Your task to perform on an android device: Search for "panasonic triple a" on newegg.com, select the first entry, and add it to the cart. Image 0: 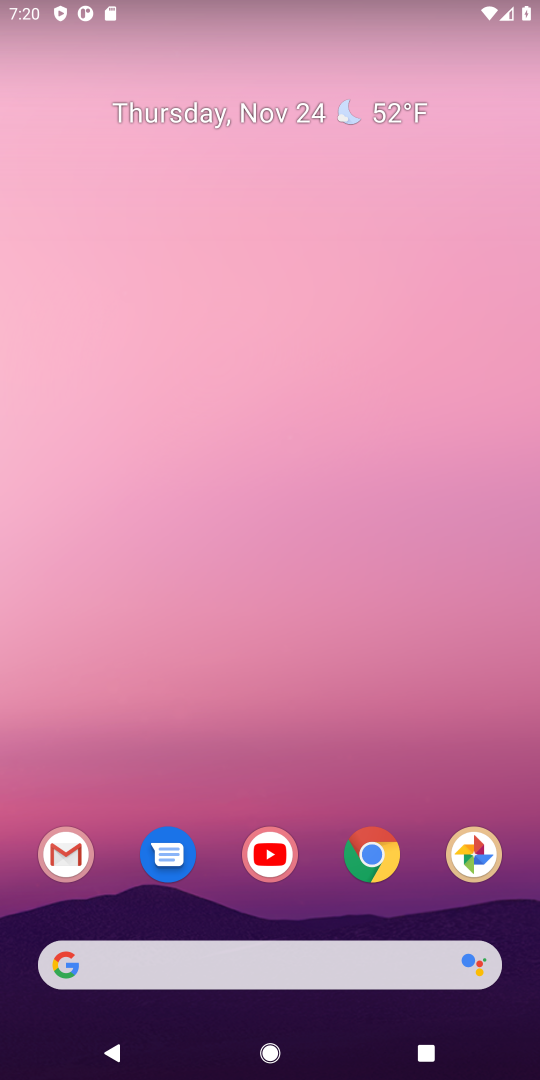
Step 0: click (358, 865)
Your task to perform on an android device: Search for "panasonic triple a" on newegg.com, select the first entry, and add it to the cart. Image 1: 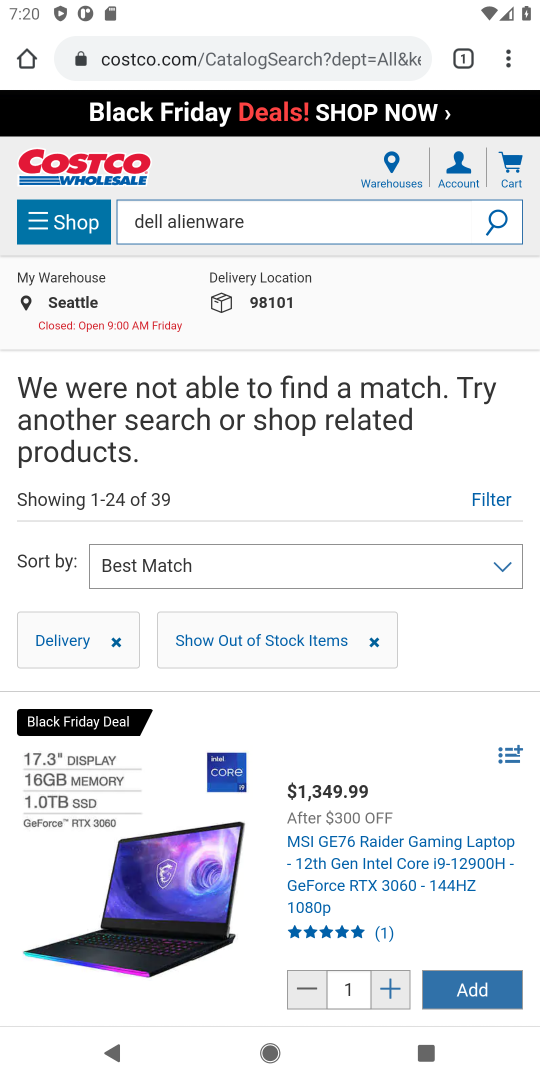
Step 1: click (208, 58)
Your task to perform on an android device: Search for "panasonic triple a" on newegg.com, select the first entry, and add it to the cart. Image 2: 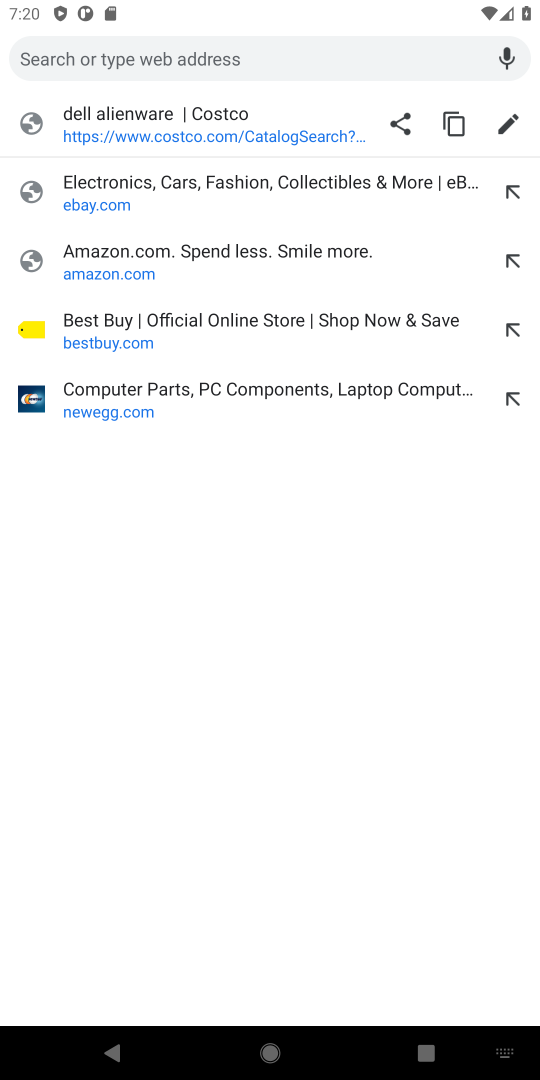
Step 2: click (80, 408)
Your task to perform on an android device: Search for "panasonic triple a" on newegg.com, select the first entry, and add it to the cart. Image 3: 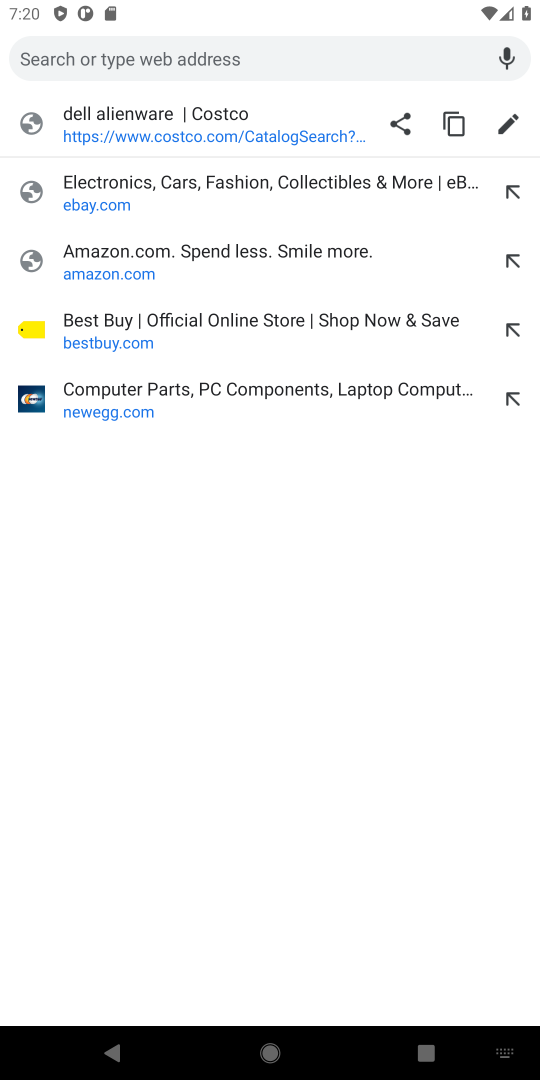
Step 3: click (93, 401)
Your task to perform on an android device: Search for "panasonic triple a" on newegg.com, select the first entry, and add it to the cart. Image 4: 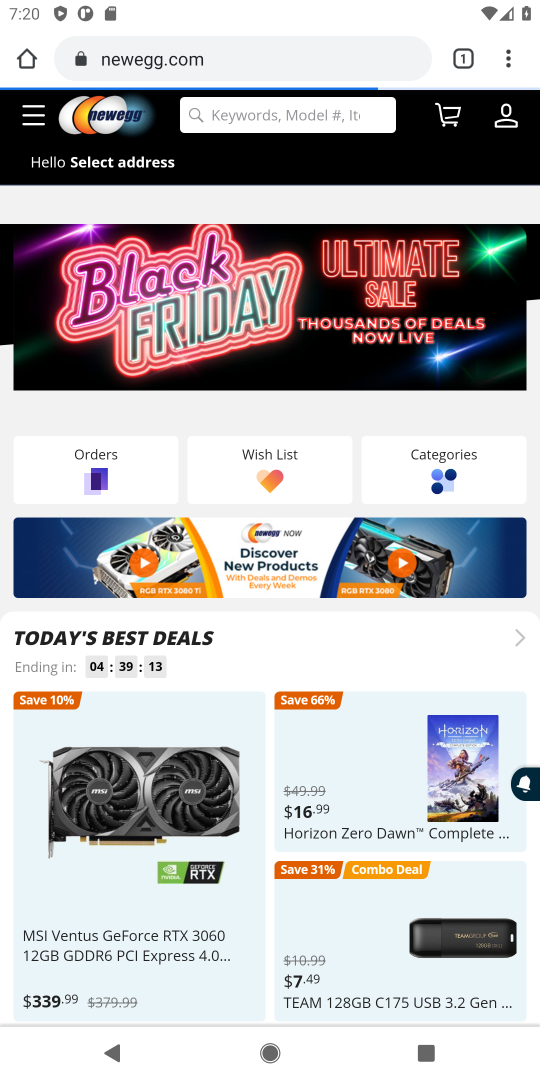
Step 4: click (255, 116)
Your task to perform on an android device: Search for "panasonic triple a" on newegg.com, select the first entry, and add it to the cart. Image 5: 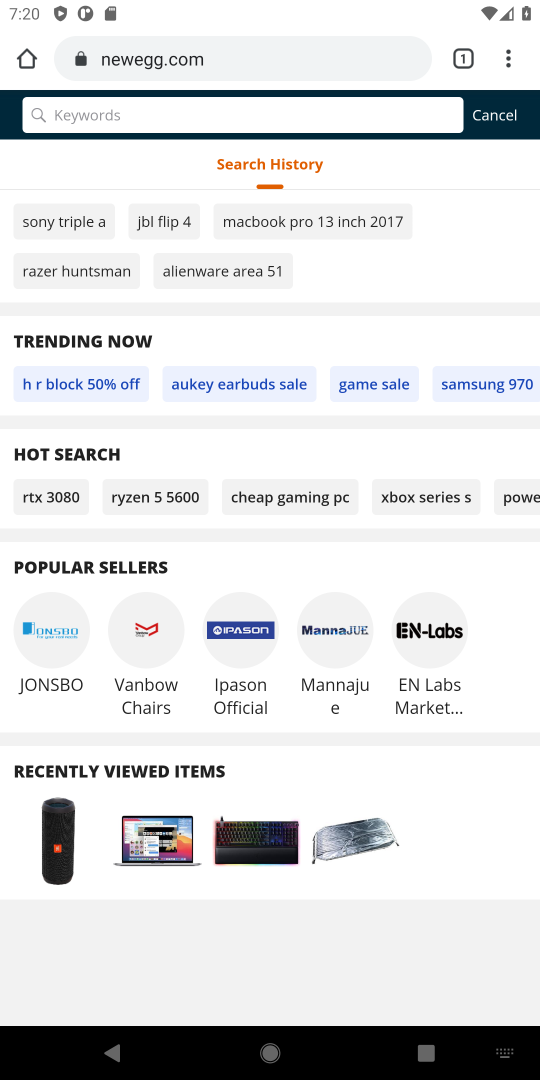
Step 5: type "panasonic triple a"
Your task to perform on an android device: Search for "panasonic triple a" on newegg.com, select the first entry, and add it to the cart. Image 6: 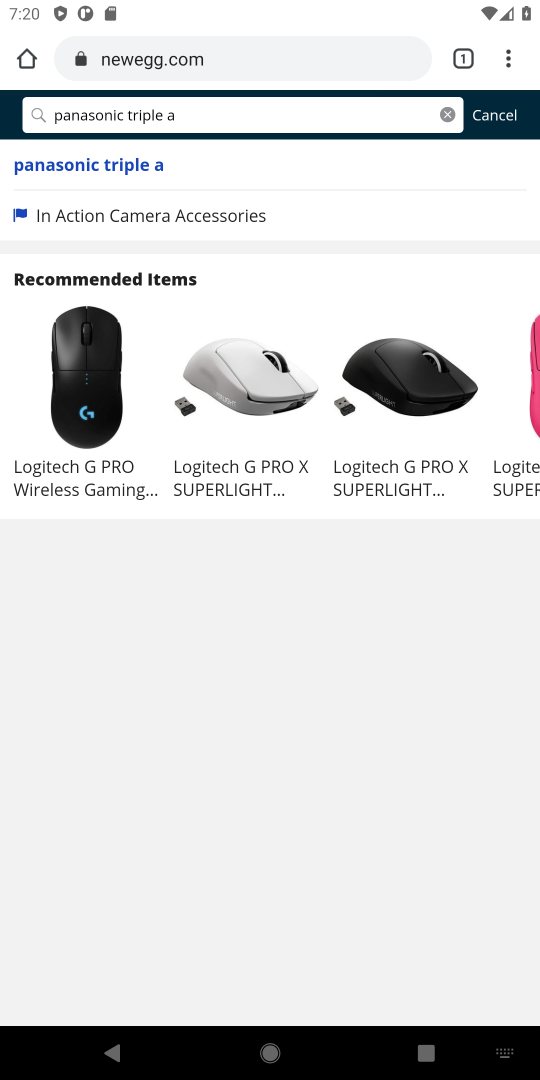
Step 6: click (96, 175)
Your task to perform on an android device: Search for "panasonic triple a" on newegg.com, select the first entry, and add it to the cart. Image 7: 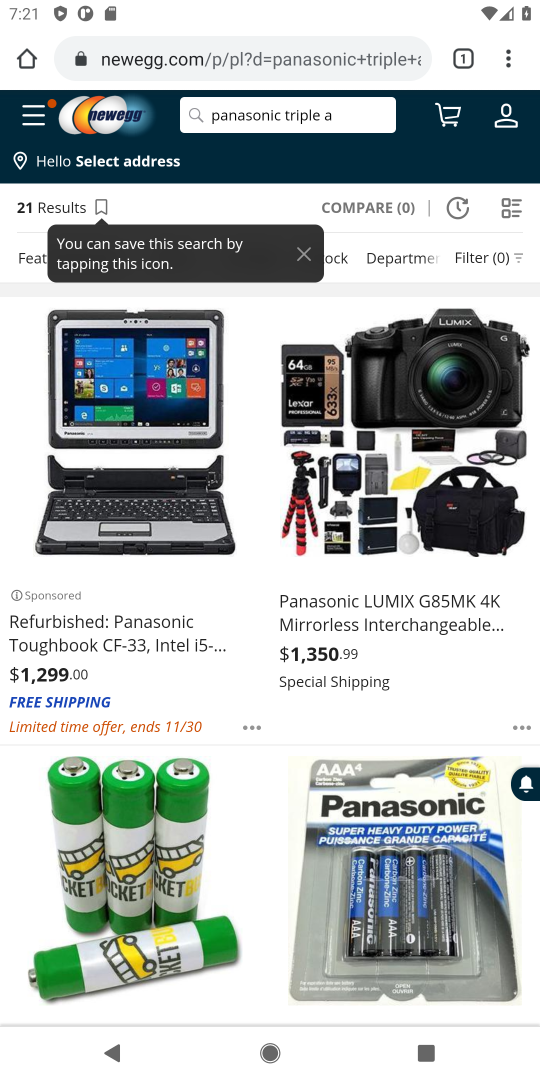
Step 7: task complete